Your task to perform on an android device: Search for sushi restaurants on Maps Image 0: 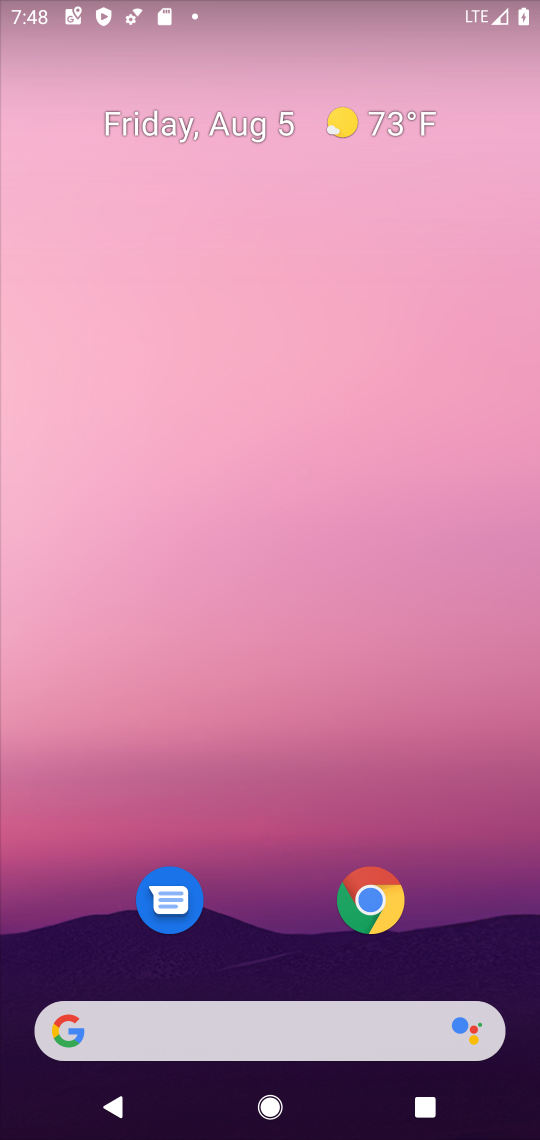
Step 0: drag from (204, 976) to (198, 344)
Your task to perform on an android device: Search for sushi restaurants on Maps Image 1: 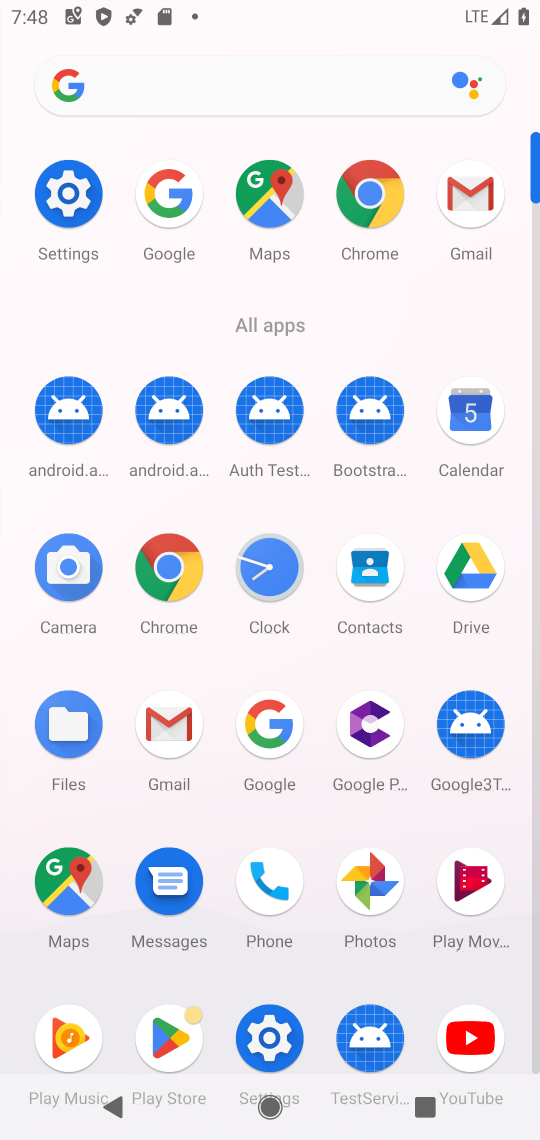
Step 1: click (272, 216)
Your task to perform on an android device: Search for sushi restaurants on Maps Image 2: 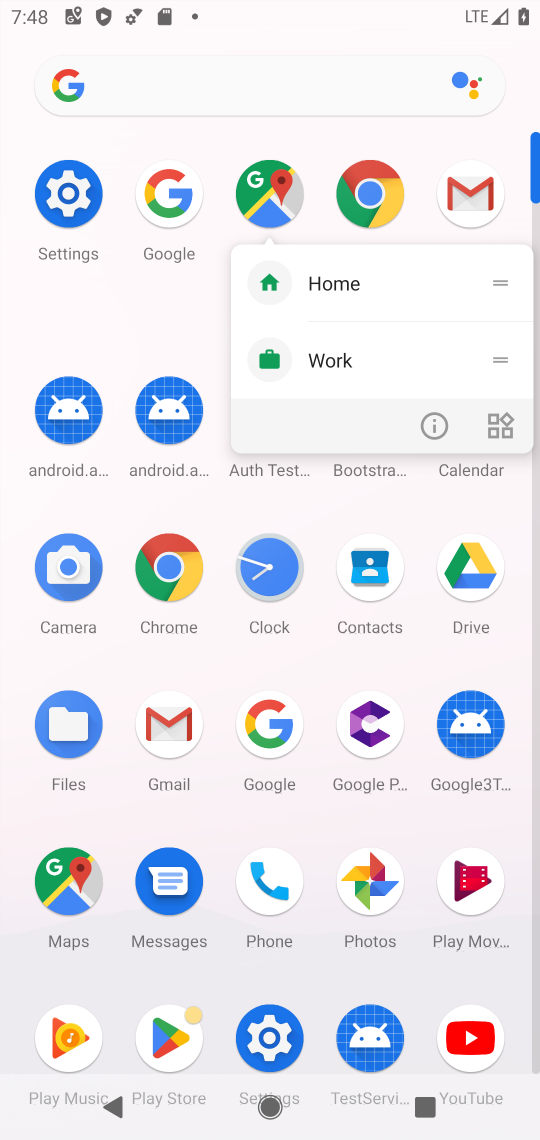
Step 2: click (268, 200)
Your task to perform on an android device: Search for sushi restaurants on Maps Image 3: 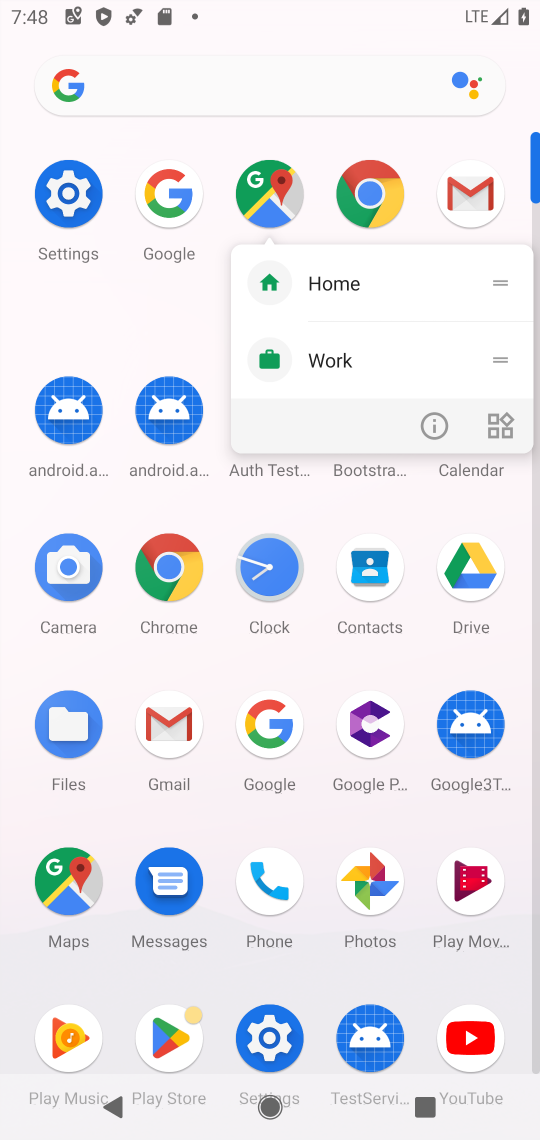
Step 3: click (268, 185)
Your task to perform on an android device: Search for sushi restaurants on Maps Image 4: 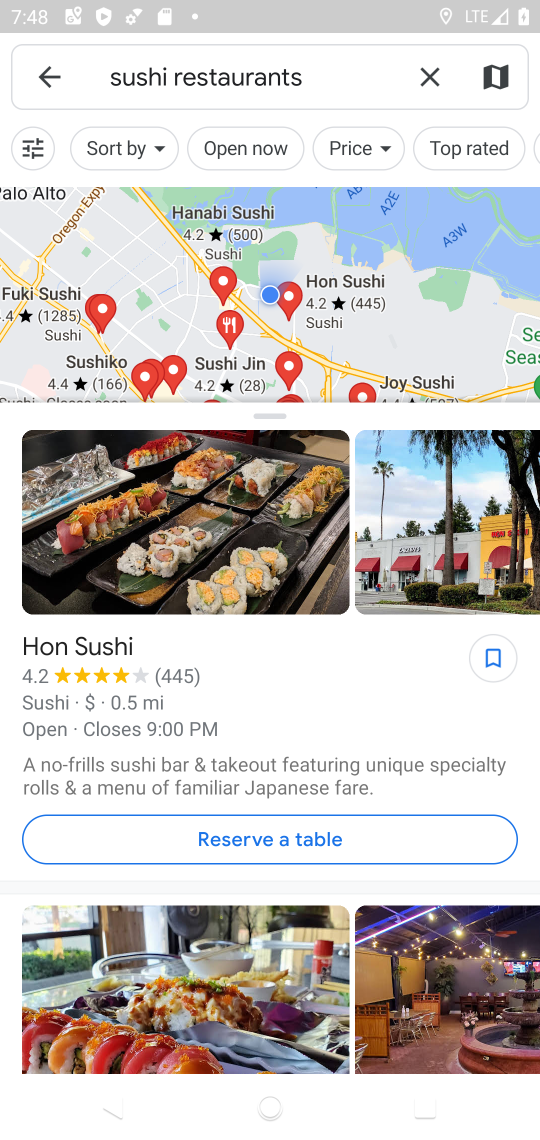
Step 4: task complete